Your task to perform on an android device: Is it going to rain tomorrow? Image 0: 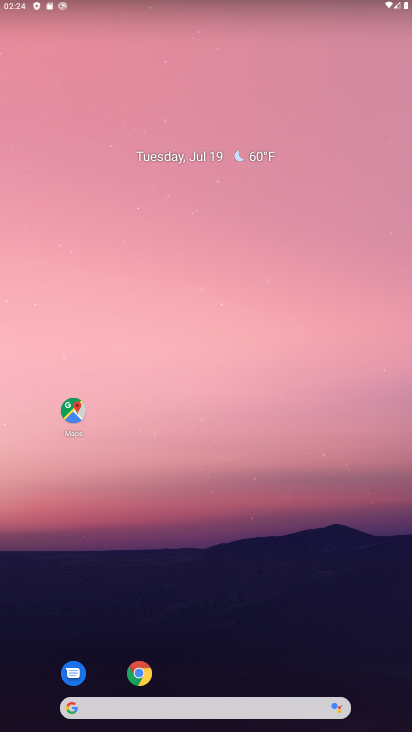
Step 0: click (263, 149)
Your task to perform on an android device: Is it going to rain tomorrow? Image 1: 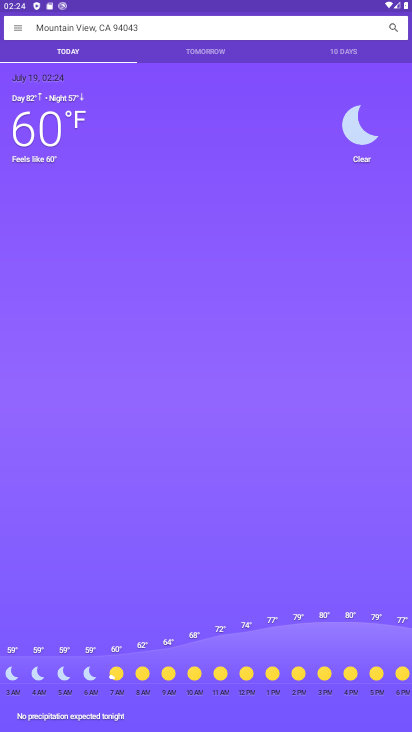
Step 1: click (203, 47)
Your task to perform on an android device: Is it going to rain tomorrow? Image 2: 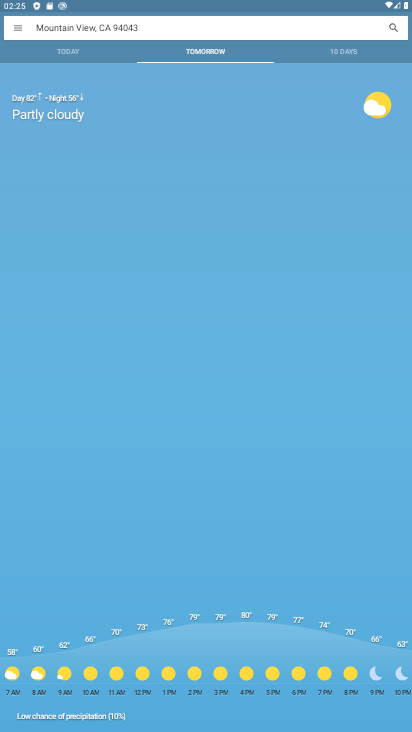
Step 2: task complete